Your task to perform on an android device: turn off airplane mode Image 0: 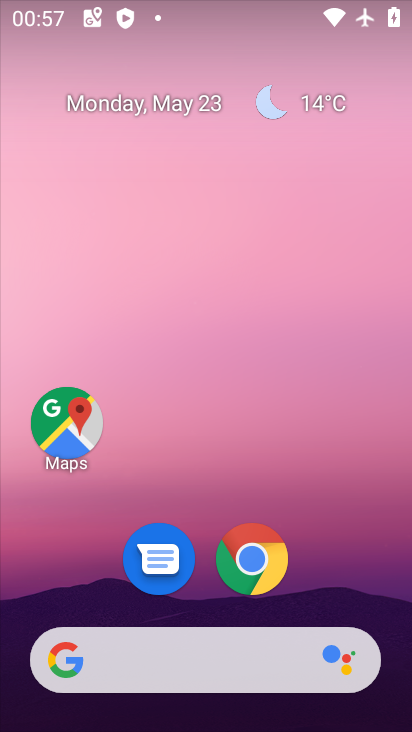
Step 0: drag from (354, 614) to (402, 482)
Your task to perform on an android device: turn off airplane mode Image 1: 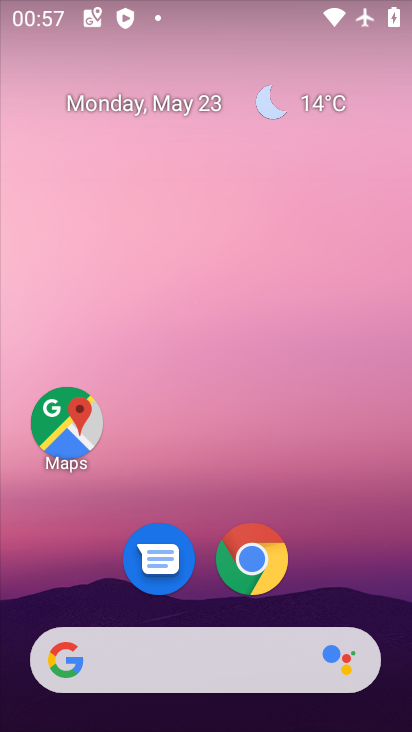
Step 1: drag from (340, 611) to (277, 4)
Your task to perform on an android device: turn off airplane mode Image 2: 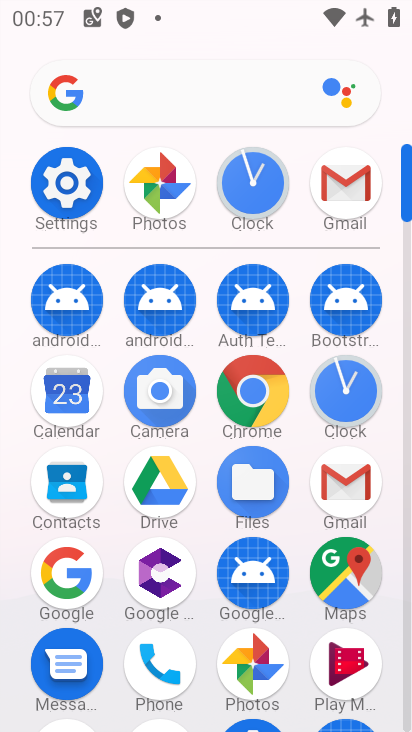
Step 2: click (71, 181)
Your task to perform on an android device: turn off airplane mode Image 3: 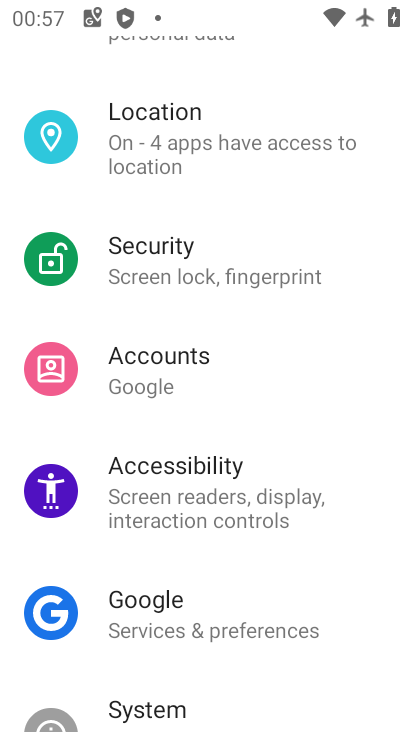
Step 3: drag from (350, 230) to (353, 716)
Your task to perform on an android device: turn off airplane mode Image 4: 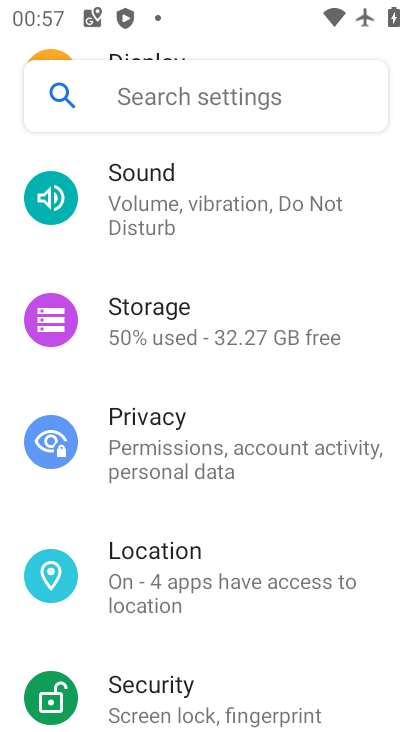
Step 4: drag from (314, 232) to (281, 730)
Your task to perform on an android device: turn off airplane mode Image 5: 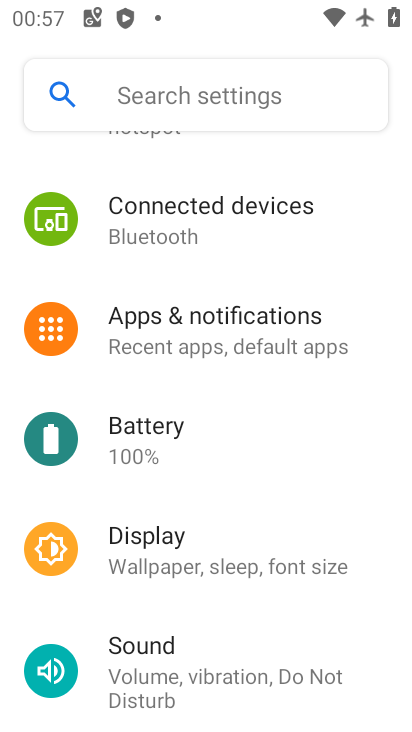
Step 5: drag from (306, 253) to (270, 711)
Your task to perform on an android device: turn off airplane mode Image 6: 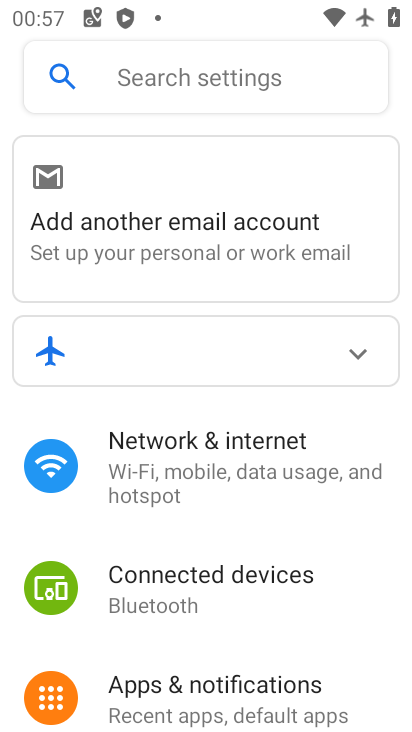
Step 6: click (190, 487)
Your task to perform on an android device: turn off airplane mode Image 7: 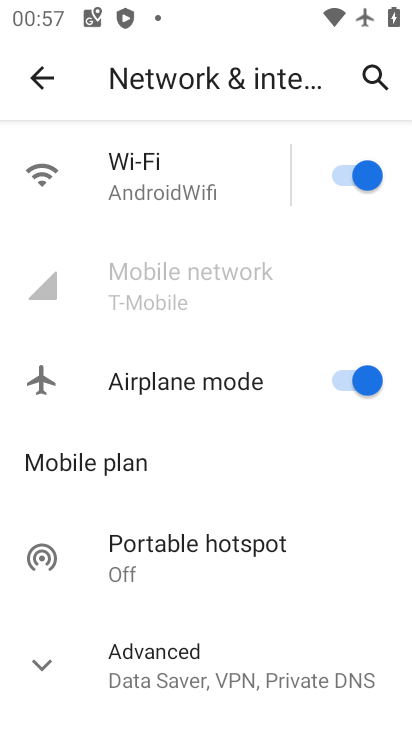
Step 7: click (358, 387)
Your task to perform on an android device: turn off airplane mode Image 8: 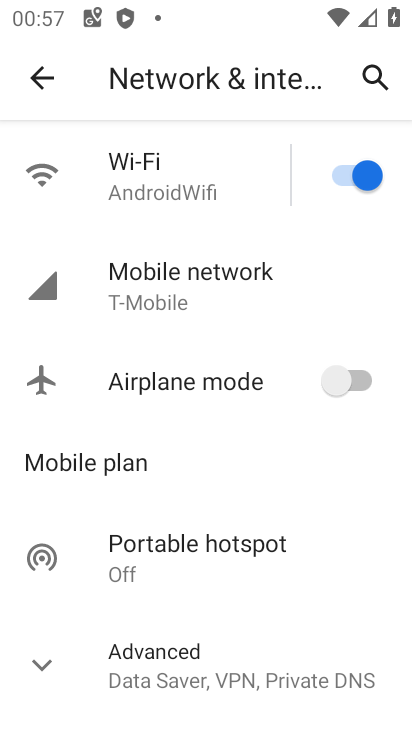
Step 8: task complete